Your task to perform on an android device: turn on showing notifications on the lock screen Image 0: 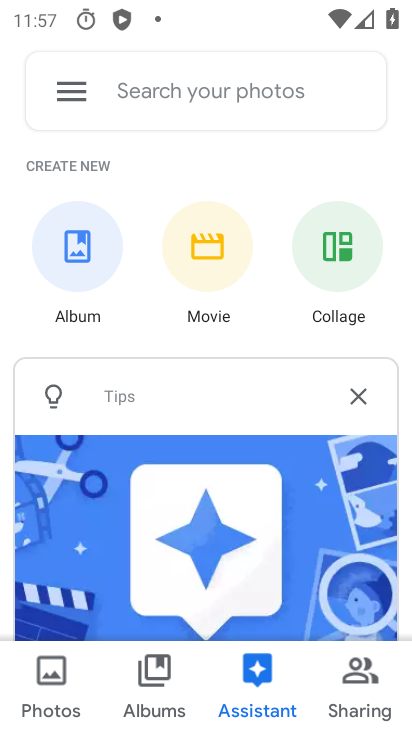
Step 0: press home button
Your task to perform on an android device: turn on showing notifications on the lock screen Image 1: 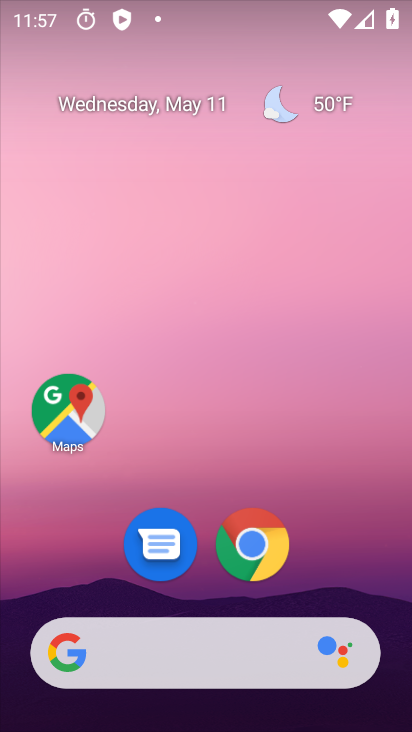
Step 1: drag from (223, 650) to (236, 190)
Your task to perform on an android device: turn on showing notifications on the lock screen Image 2: 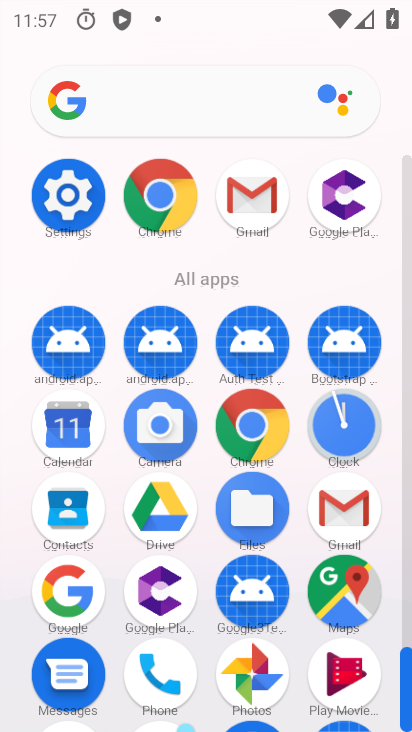
Step 2: click (67, 221)
Your task to perform on an android device: turn on showing notifications on the lock screen Image 3: 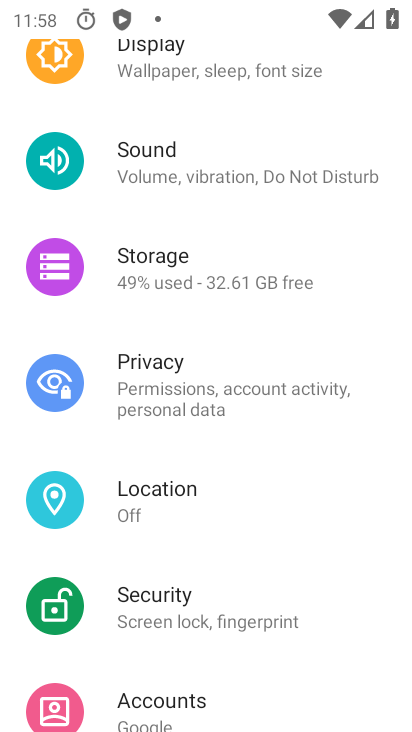
Step 3: drag from (189, 191) to (213, 590)
Your task to perform on an android device: turn on showing notifications on the lock screen Image 4: 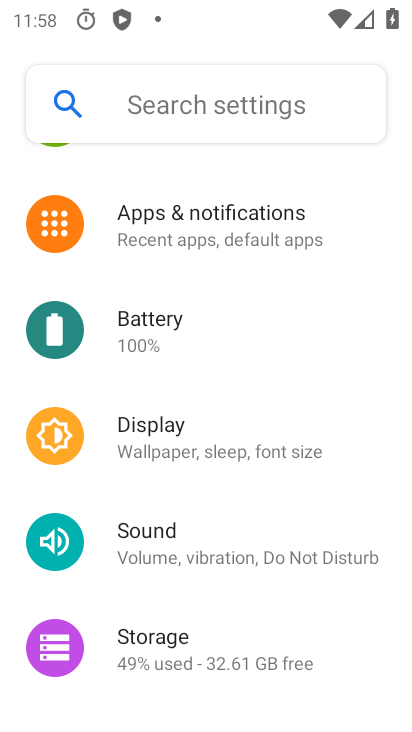
Step 4: click (147, 207)
Your task to perform on an android device: turn on showing notifications on the lock screen Image 5: 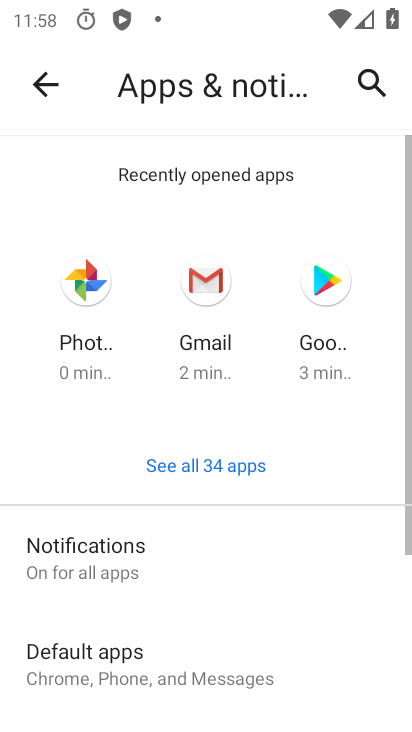
Step 5: click (193, 552)
Your task to perform on an android device: turn on showing notifications on the lock screen Image 6: 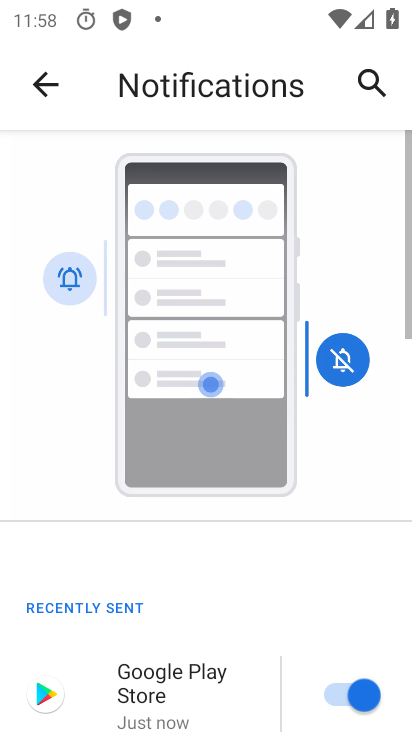
Step 6: drag from (182, 605) to (173, 80)
Your task to perform on an android device: turn on showing notifications on the lock screen Image 7: 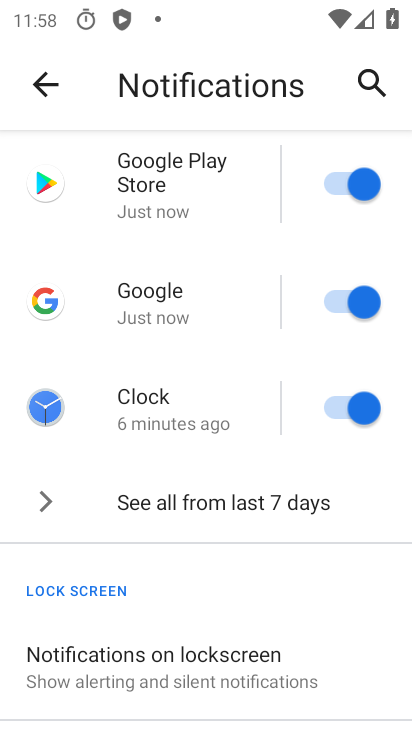
Step 7: click (192, 658)
Your task to perform on an android device: turn on showing notifications on the lock screen Image 8: 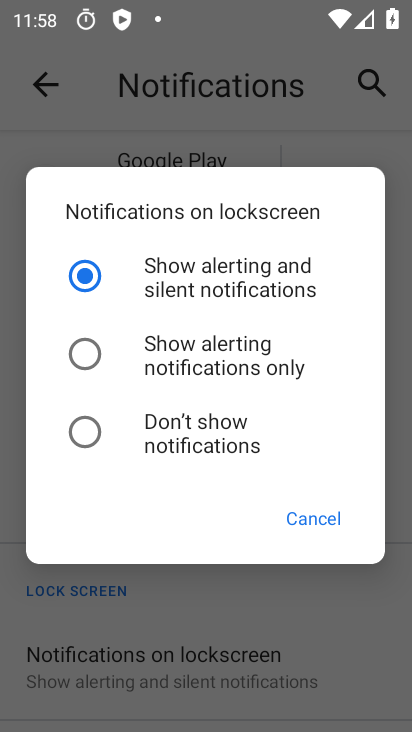
Step 8: click (178, 286)
Your task to perform on an android device: turn on showing notifications on the lock screen Image 9: 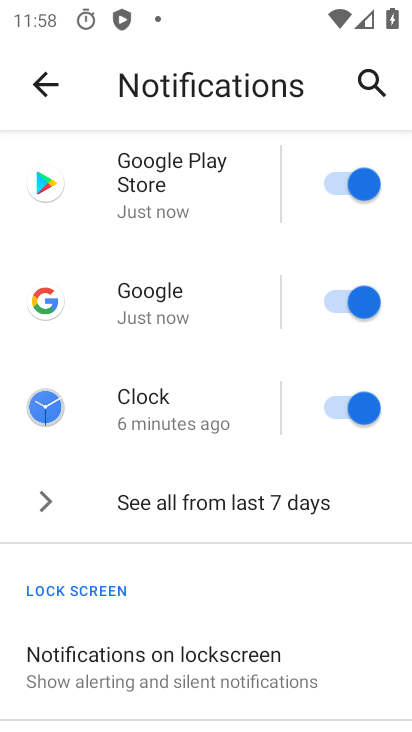
Step 9: task complete